Your task to perform on an android device: set the stopwatch Image 0: 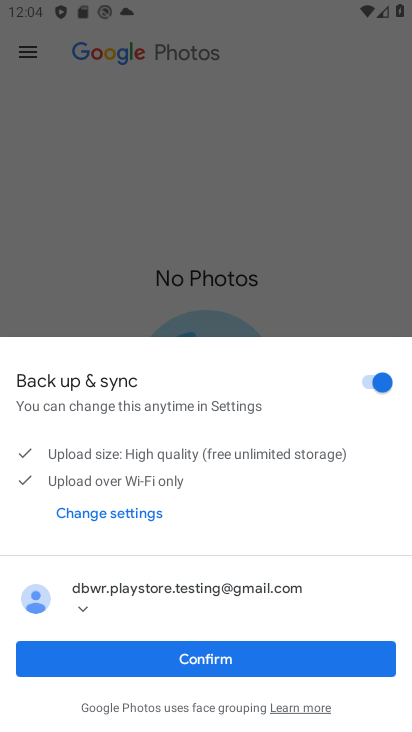
Step 0: press home button
Your task to perform on an android device: set the stopwatch Image 1: 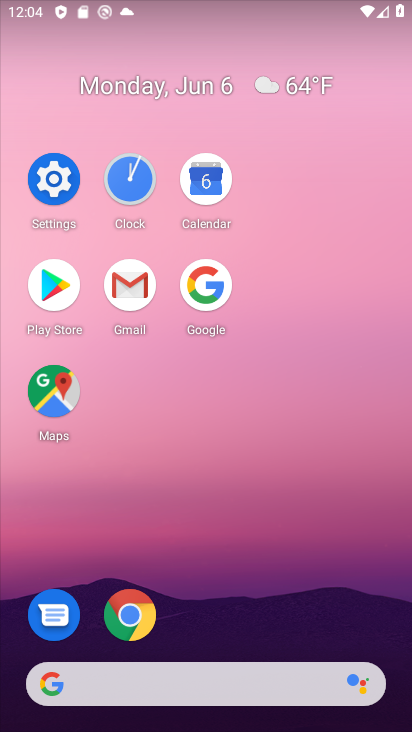
Step 1: click (122, 186)
Your task to perform on an android device: set the stopwatch Image 2: 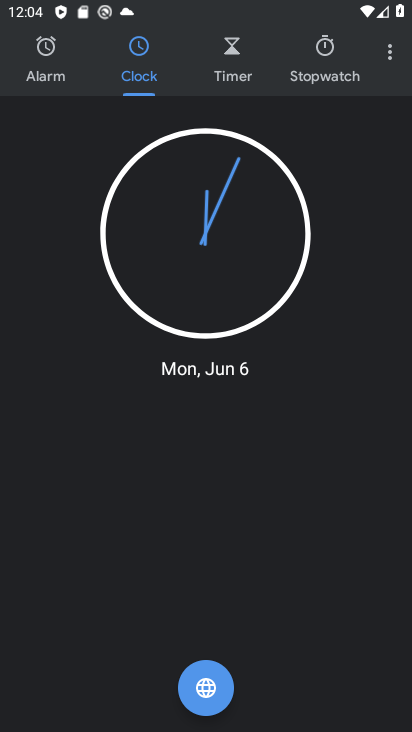
Step 2: click (327, 65)
Your task to perform on an android device: set the stopwatch Image 3: 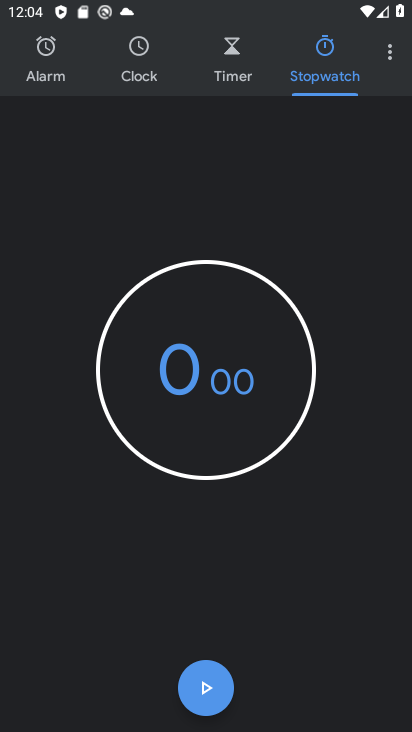
Step 3: click (200, 668)
Your task to perform on an android device: set the stopwatch Image 4: 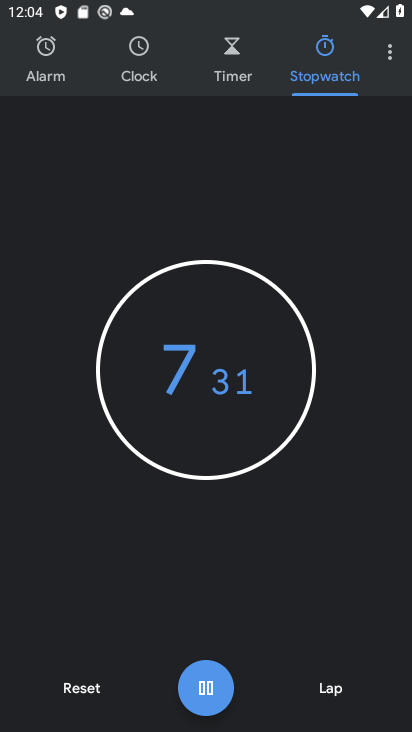
Step 4: task complete